Your task to perform on an android device: open sync settings in chrome Image 0: 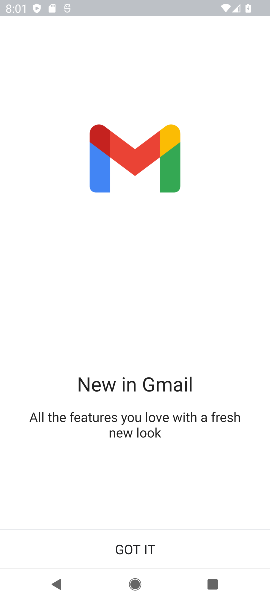
Step 0: press home button
Your task to perform on an android device: open sync settings in chrome Image 1: 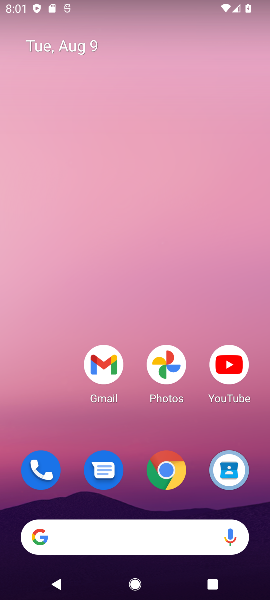
Step 1: click (162, 469)
Your task to perform on an android device: open sync settings in chrome Image 2: 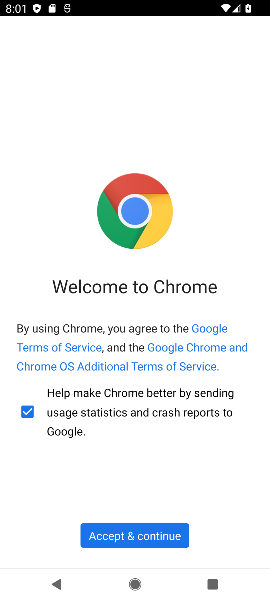
Step 2: click (139, 532)
Your task to perform on an android device: open sync settings in chrome Image 3: 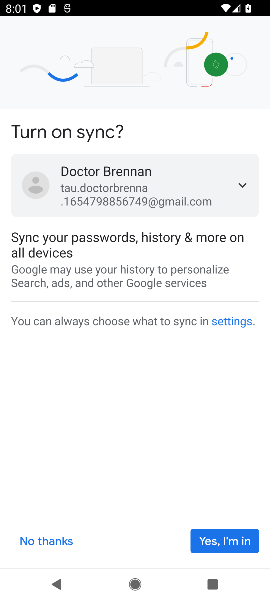
Step 3: click (210, 542)
Your task to perform on an android device: open sync settings in chrome Image 4: 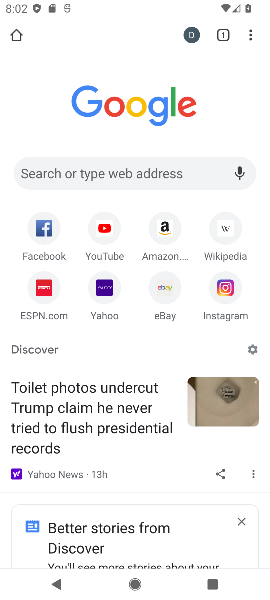
Step 4: click (249, 36)
Your task to perform on an android device: open sync settings in chrome Image 5: 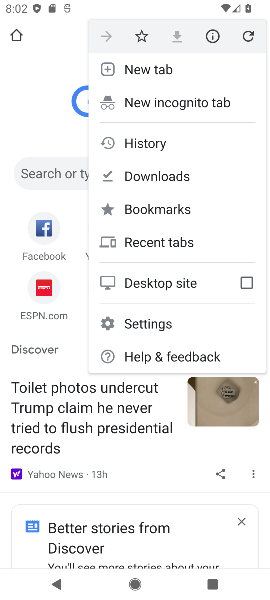
Step 5: click (145, 319)
Your task to perform on an android device: open sync settings in chrome Image 6: 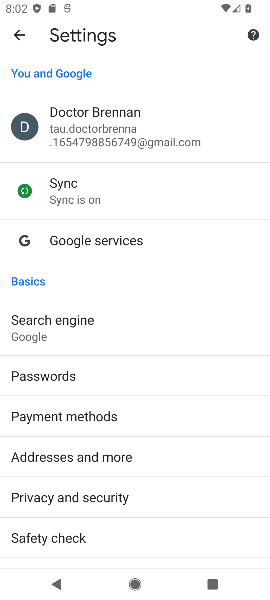
Step 6: click (84, 202)
Your task to perform on an android device: open sync settings in chrome Image 7: 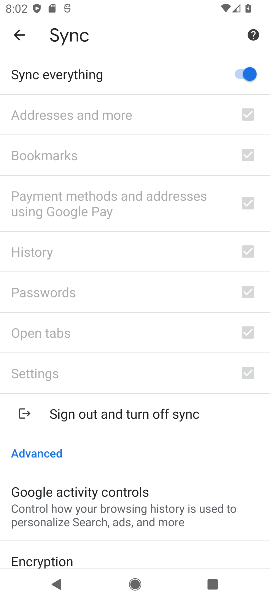
Step 7: task complete